Your task to perform on an android device: stop showing notifications on the lock screen Image 0: 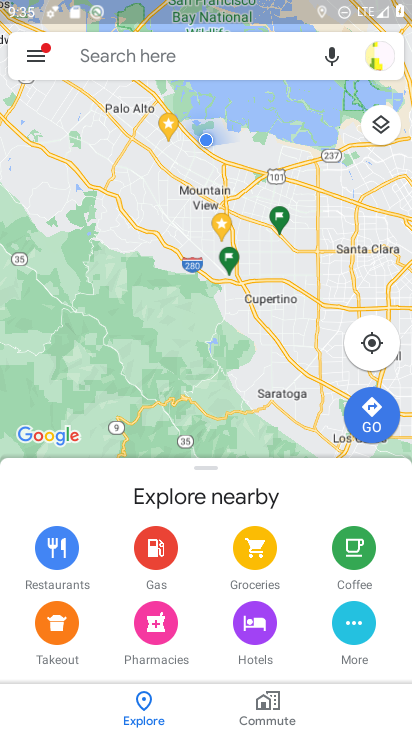
Step 0: press home button
Your task to perform on an android device: stop showing notifications on the lock screen Image 1: 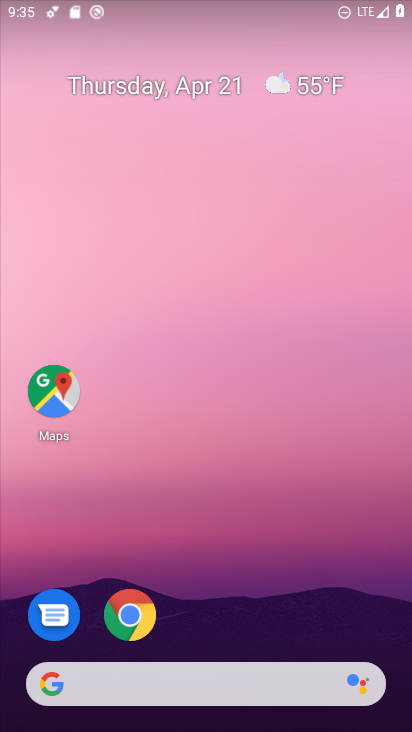
Step 1: drag from (250, 600) to (301, 55)
Your task to perform on an android device: stop showing notifications on the lock screen Image 2: 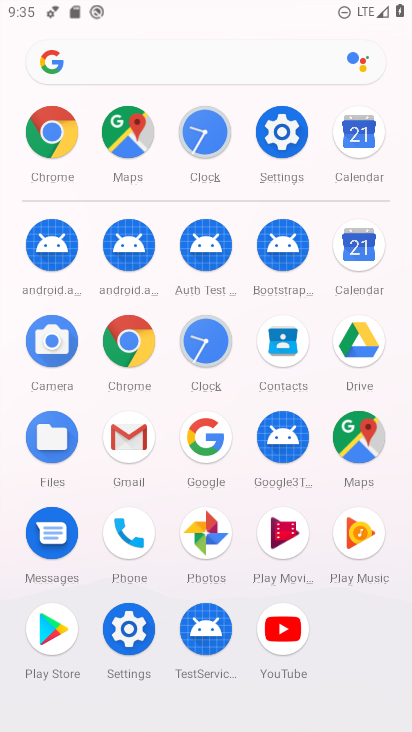
Step 2: click (285, 131)
Your task to perform on an android device: stop showing notifications on the lock screen Image 3: 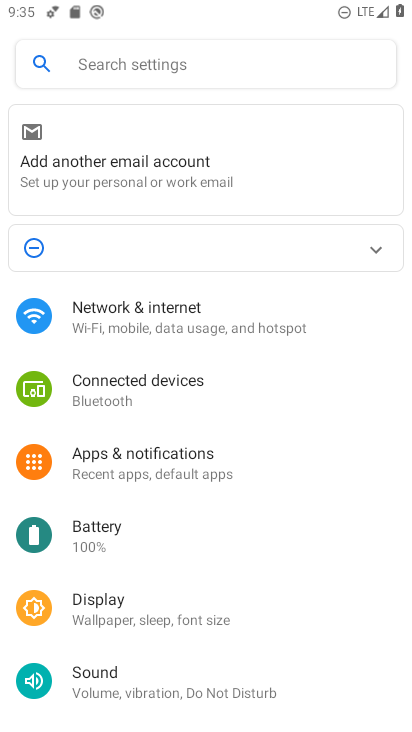
Step 3: drag from (249, 588) to (301, 256)
Your task to perform on an android device: stop showing notifications on the lock screen Image 4: 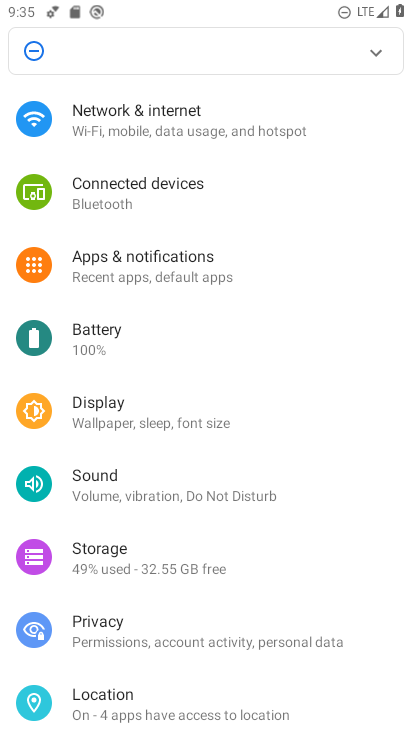
Step 4: drag from (246, 573) to (264, 145)
Your task to perform on an android device: stop showing notifications on the lock screen Image 5: 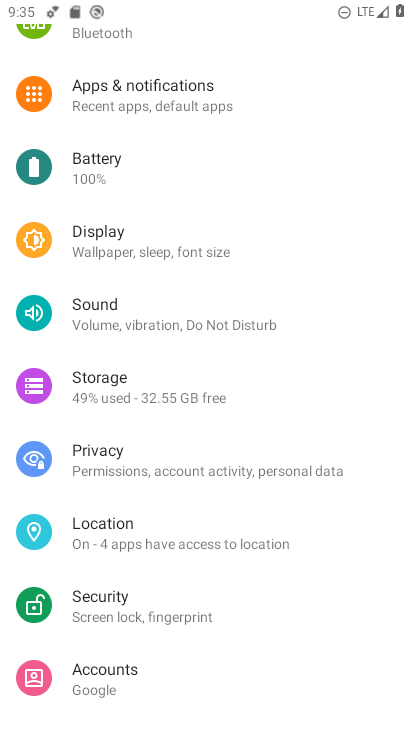
Step 5: drag from (242, 642) to (288, 235)
Your task to perform on an android device: stop showing notifications on the lock screen Image 6: 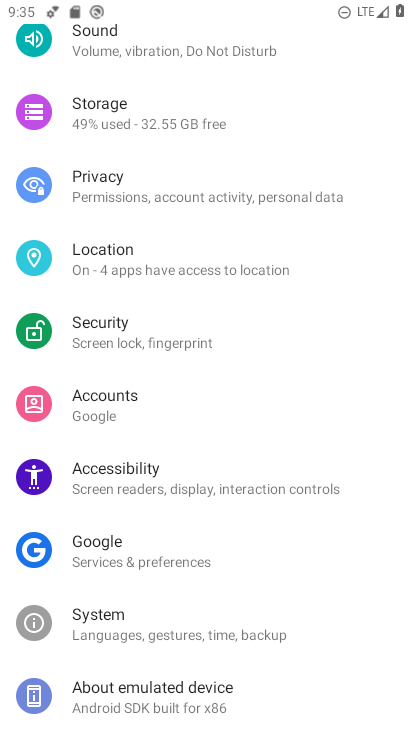
Step 6: drag from (298, 400) to (278, 623)
Your task to perform on an android device: stop showing notifications on the lock screen Image 7: 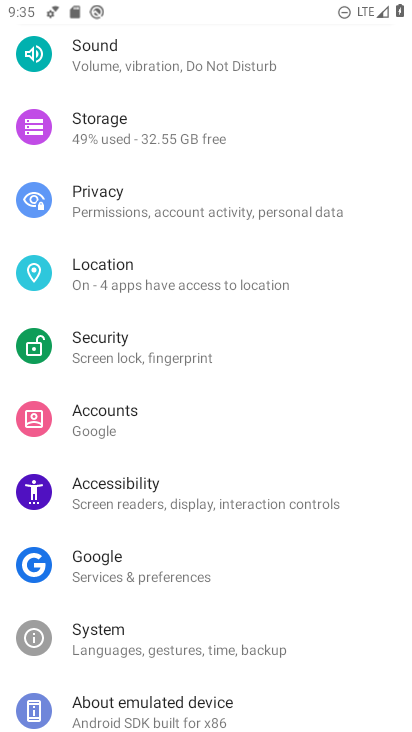
Step 7: drag from (318, 218) to (273, 590)
Your task to perform on an android device: stop showing notifications on the lock screen Image 8: 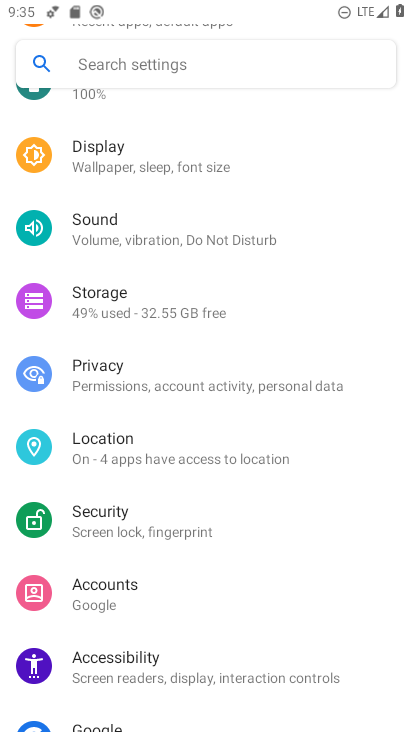
Step 8: drag from (258, 228) to (196, 600)
Your task to perform on an android device: stop showing notifications on the lock screen Image 9: 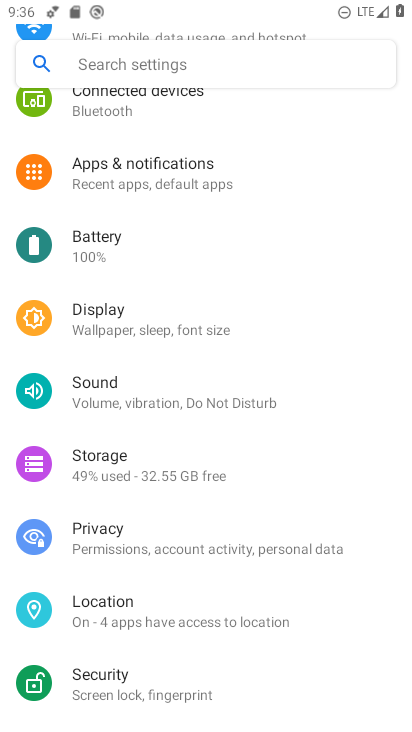
Step 9: click (189, 197)
Your task to perform on an android device: stop showing notifications on the lock screen Image 10: 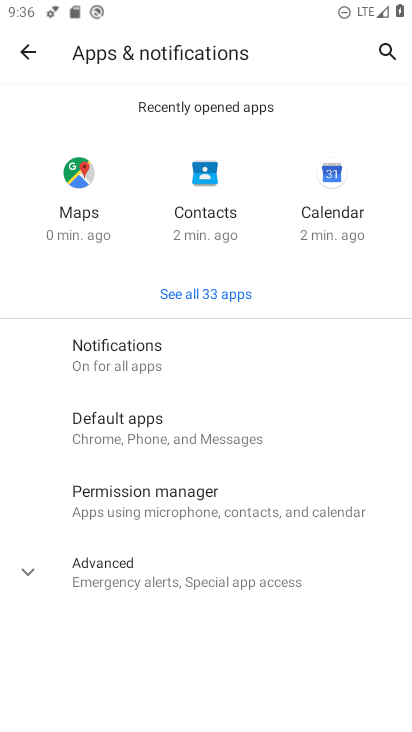
Step 10: click (96, 360)
Your task to perform on an android device: stop showing notifications on the lock screen Image 11: 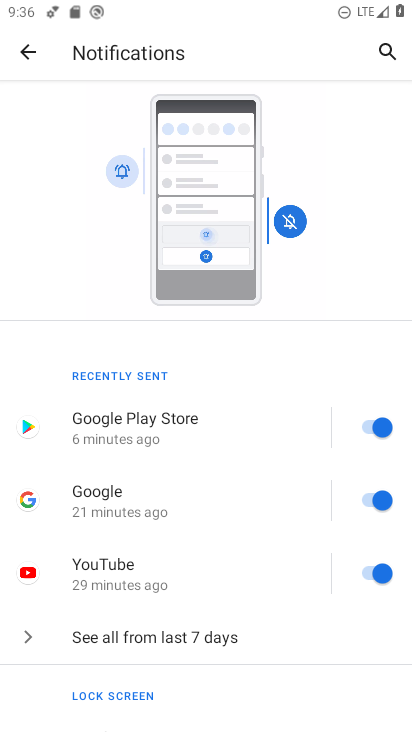
Step 11: drag from (183, 575) to (206, 241)
Your task to perform on an android device: stop showing notifications on the lock screen Image 12: 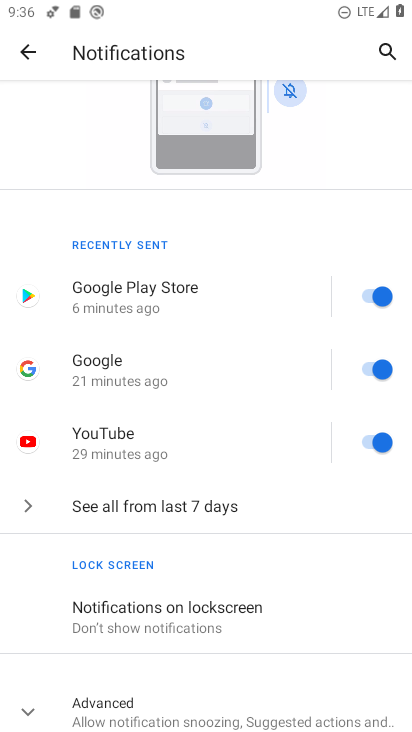
Step 12: drag from (193, 623) to (232, 170)
Your task to perform on an android device: stop showing notifications on the lock screen Image 13: 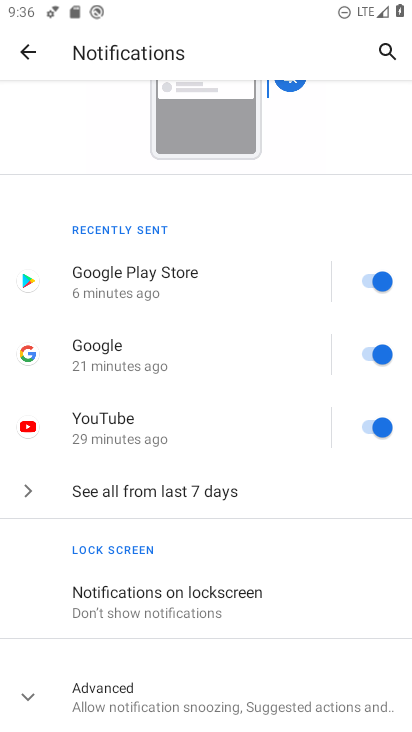
Step 13: click (142, 699)
Your task to perform on an android device: stop showing notifications on the lock screen Image 14: 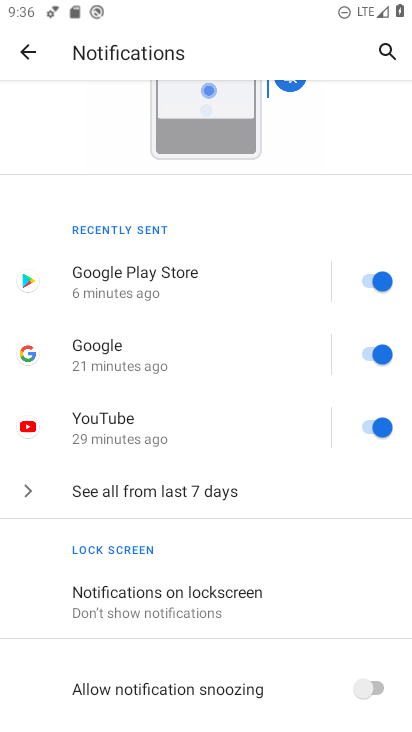
Step 14: drag from (186, 671) to (187, 313)
Your task to perform on an android device: stop showing notifications on the lock screen Image 15: 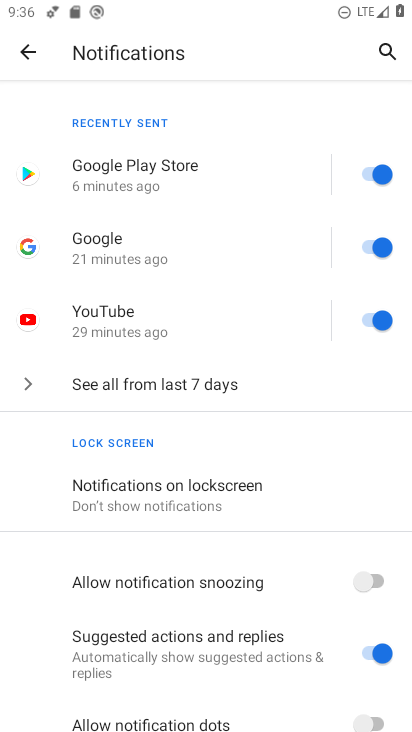
Step 15: click (158, 495)
Your task to perform on an android device: stop showing notifications on the lock screen Image 16: 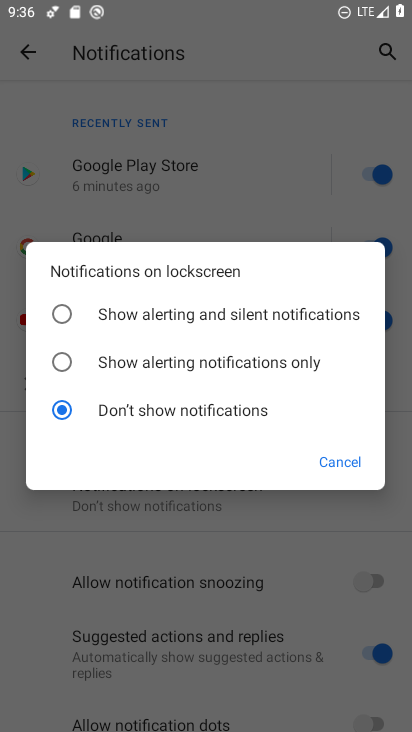
Step 16: task complete